Your task to perform on an android device: Open internet settings Image 0: 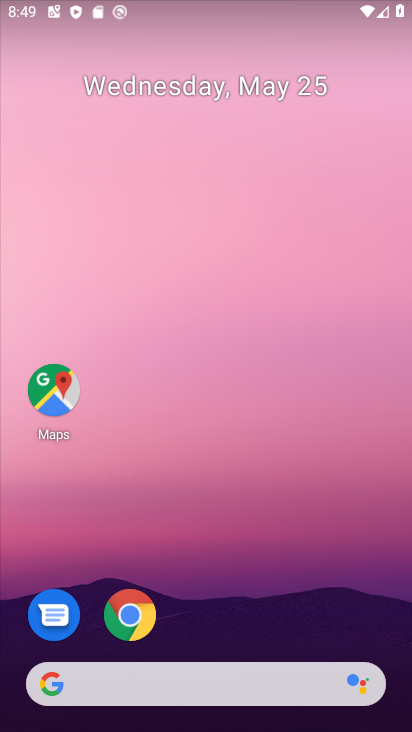
Step 0: drag from (194, 681) to (168, 291)
Your task to perform on an android device: Open internet settings Image 1: 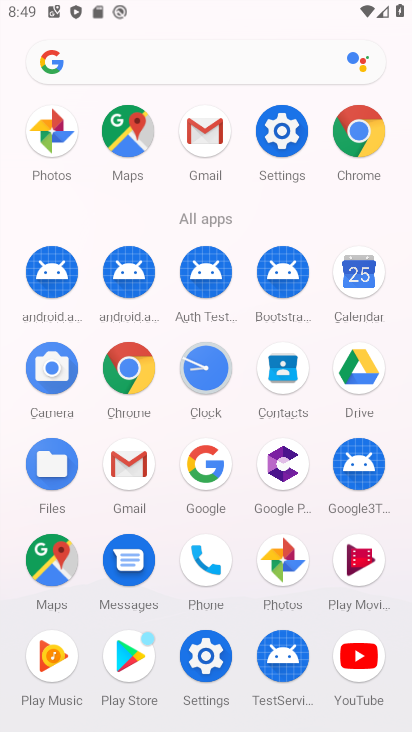
Step 1: click (288, 142)
Your task to perform on an android device: Open internet settings Image 2: 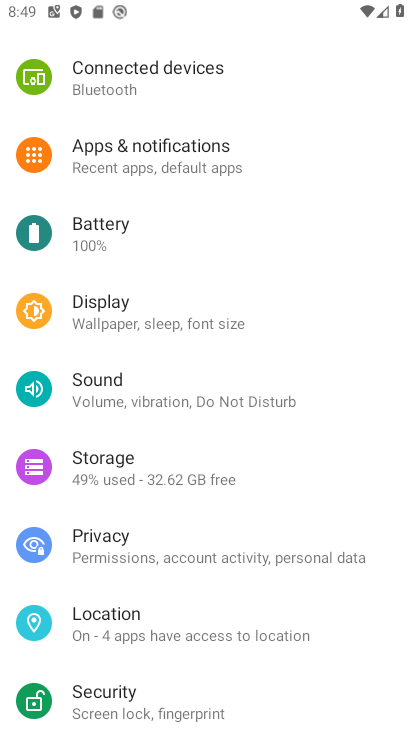
Step 2: drag from (212, 89) to (303, 330)
Your task to perform on an android device: Open internet settings Image 3: 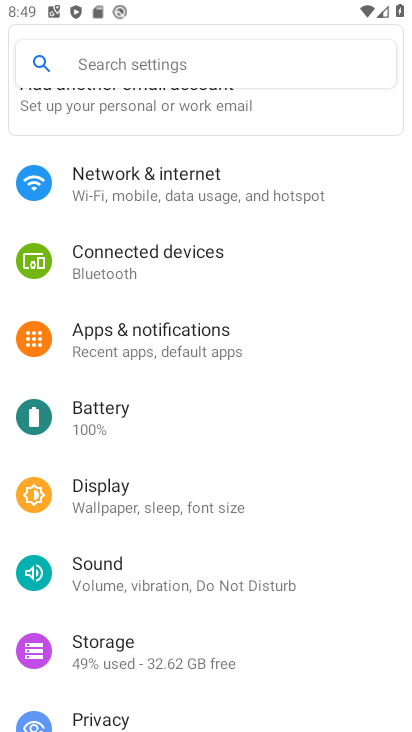
Step 3: click (170, 200)
Your task to perform on an android device: Open internet settings Image 4: 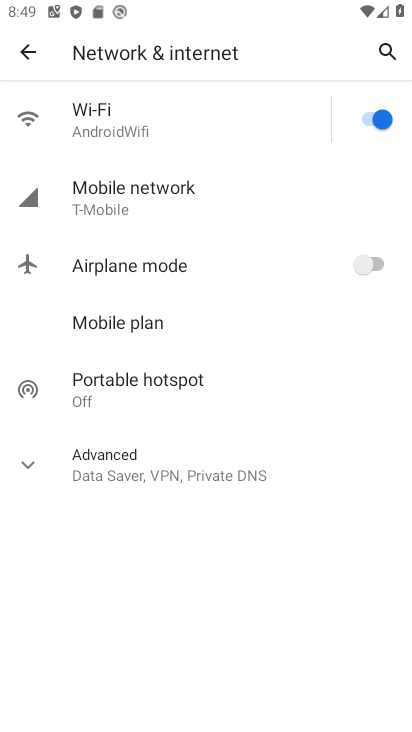
Step 4: task complete